Your task to perform on an android device: uninstall "McDonald's" Image 0: 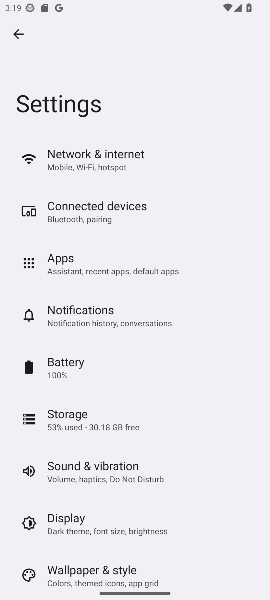
Step 0: press home button
Your task to perform on an android device: uninstall "McDonald's" Image 1: 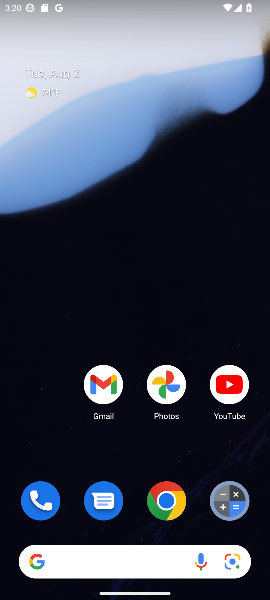
Step 1: drag from (164, 445) to (174, 84)
Your task to perform on an android device: uninstall "McDonald's" Image 2: 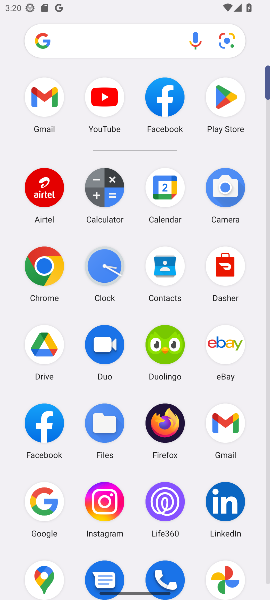
Step 2: click (228, 99)
Your task to perform on an android device: uninstall "McDonald's" Image 3: 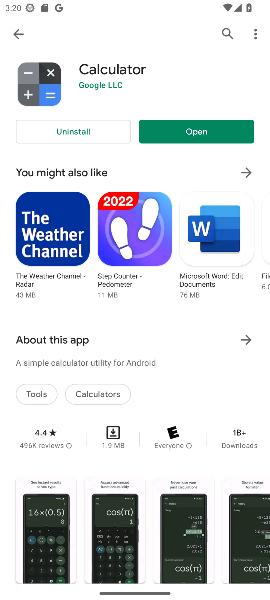
Step 3: click (220, 33)
Your task to perform on an android device: uninstall "McDonald's" Image 4: 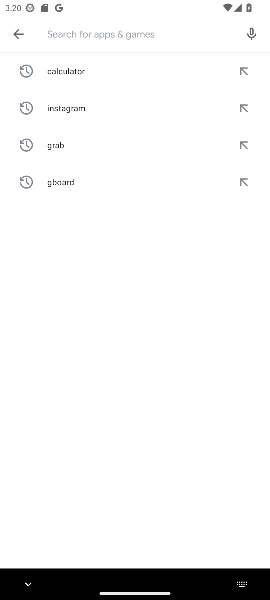
Step 4: type "McDonald's"
Your task to perform on an android device: uninstall "McDonald's" Image 5: 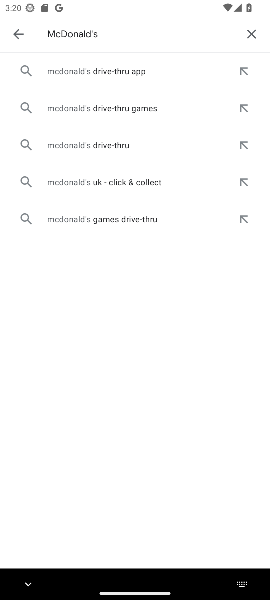
Step 5: click (84, 73)
Your task to perform on an android device: uninstall "McDonald's" Image 6: 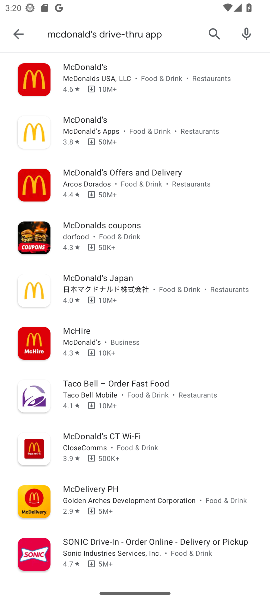
Step 6: click (84, 81)
Your task to perform on an android device: uninstall "McDonald's" Image 7: 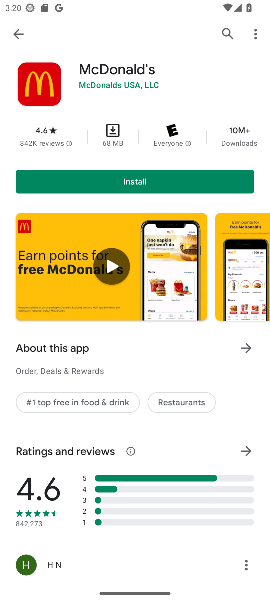
Step 7: task complete